Your task to perform on an android device: toggle data saver in the chrome app Image 0: 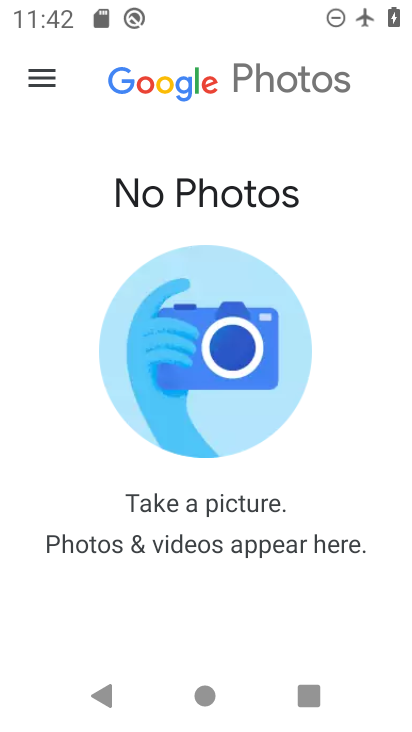
Step 0: press home button
Your task to perform on an android device: toggle data saver in the chrome app Image 1: 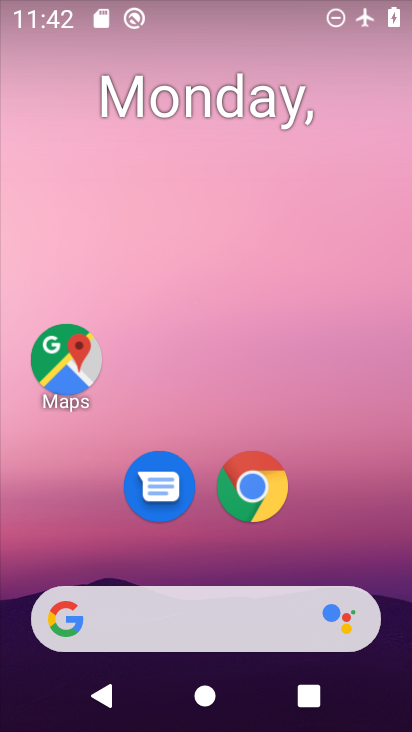
Step 1: click (241, 497)
Your task to perform on an android device: toggle data saver in the chrome app Image 2: 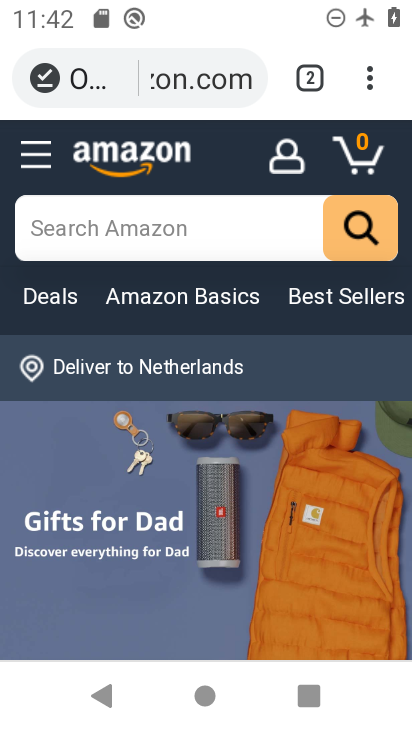
Step 2: click (366, 78)
Your task to perform on an android device: toggle data saver in the chrome app Image 3: 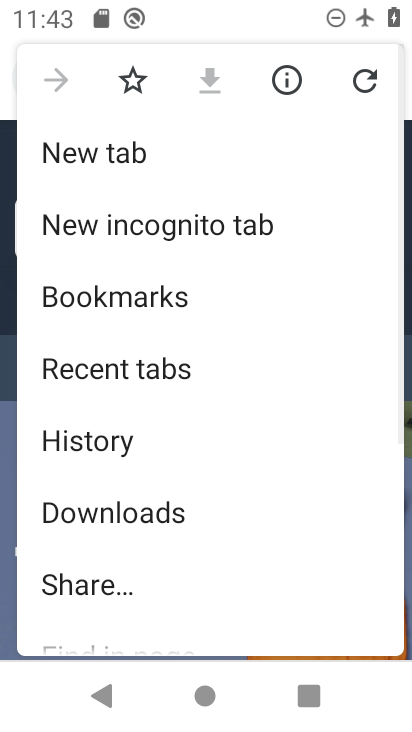
Step 3: drag from (88, 594) to (227, 145)
Your task to perform on an android device: toggle data saver in the chrome app Image 4: 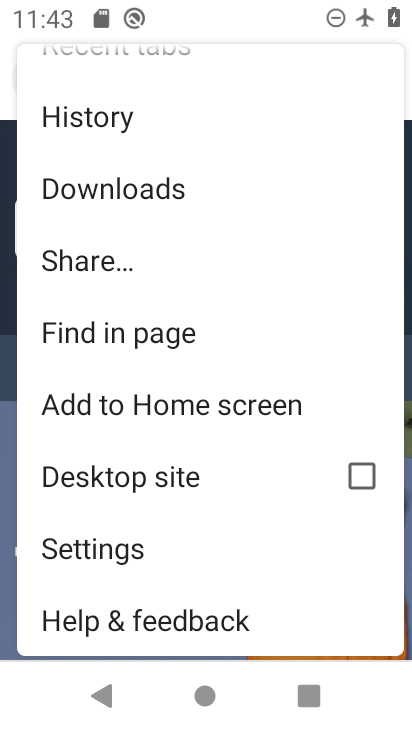
Step 4: click (96, 557)
Your task to perform on an android device: toggle data saver in the chrome app Image 5: 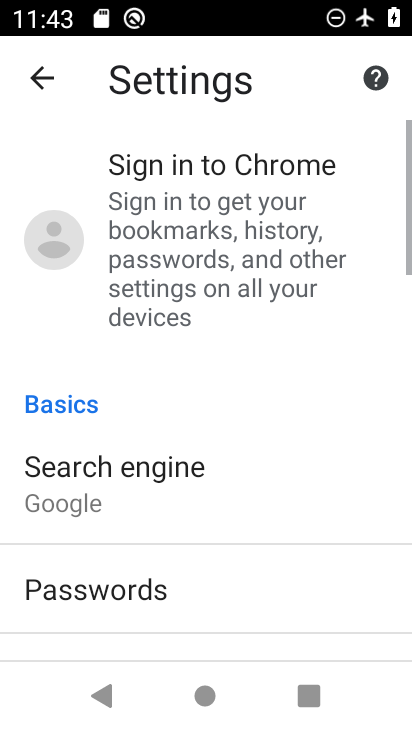
Step 5: drag from (23, 726) to (193, 181)
Your task to perform on an android device: toggle data saver in the chrome app Image 6: 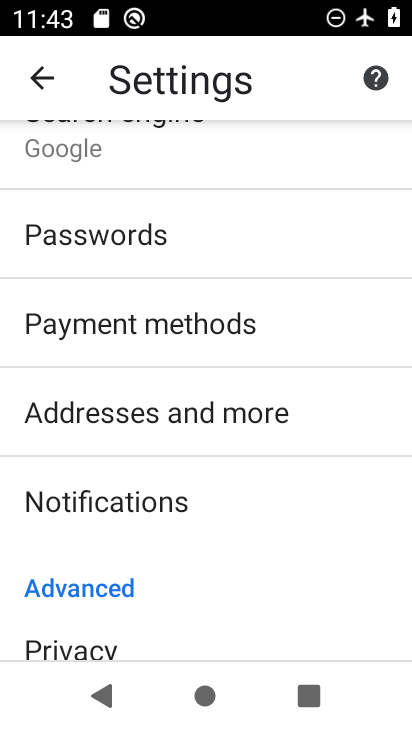
Step 6: drag from (22, 532) to (136, 276)
Your task to perform on an android device: toggle data saver in the chrome app Image 7: 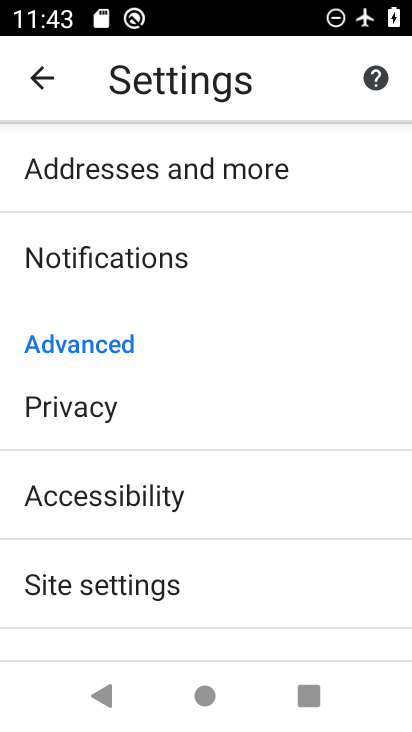
Step 7: click (83, 587)
Your task to perform on an android device: toggle data saver in the chrome app Image 8: 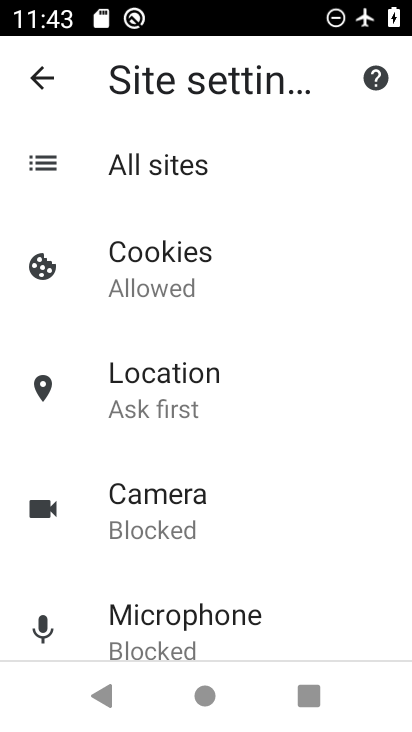
Step 8: drag from (13, 578) to (220, 196)
Your task to perform on an android device: toggle data saver in the chrome app Image 9: 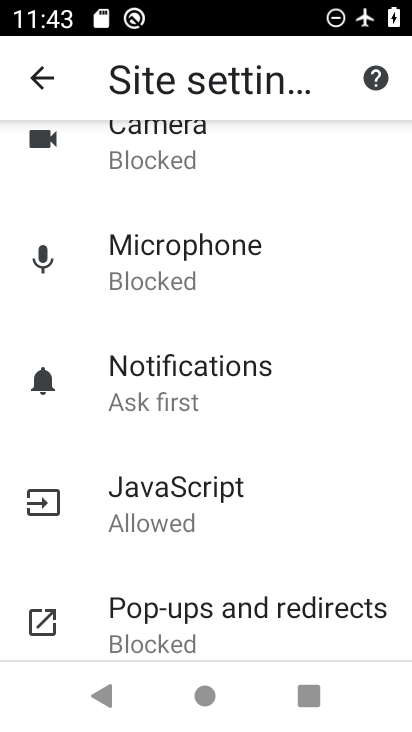
Step 9: drag from (18, 592) to (158, 357)
Your task to perform on an android device: toggle data saver in the chrome app Image 10: 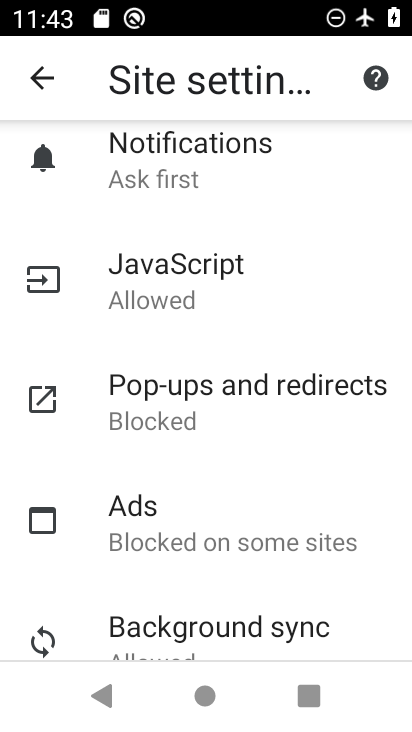
Step 10: click (167, 338)
Your task to perform on an android device: toggle data saver in the chrome app Image 11: 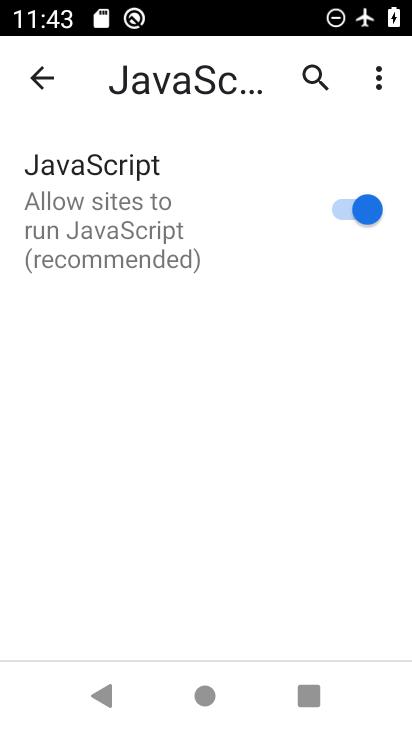
Step 11: click (372, 214)
Your task to perform on an android device: toggle data saver in the chrome app Image 12: 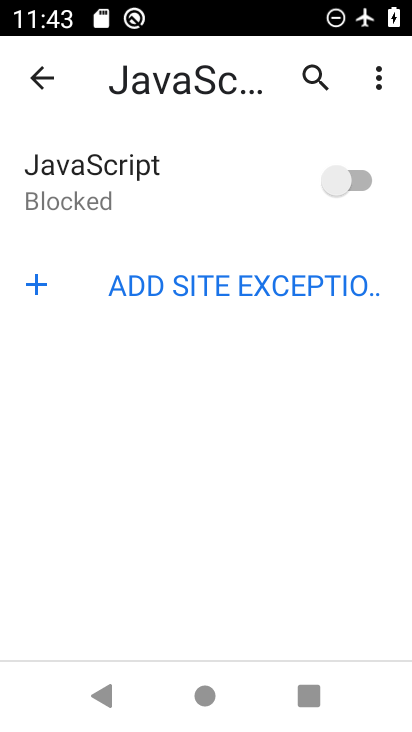
Step 12: task complete